Your task to perform on an android device: delete the emails in spam in the gmail app Image 0: 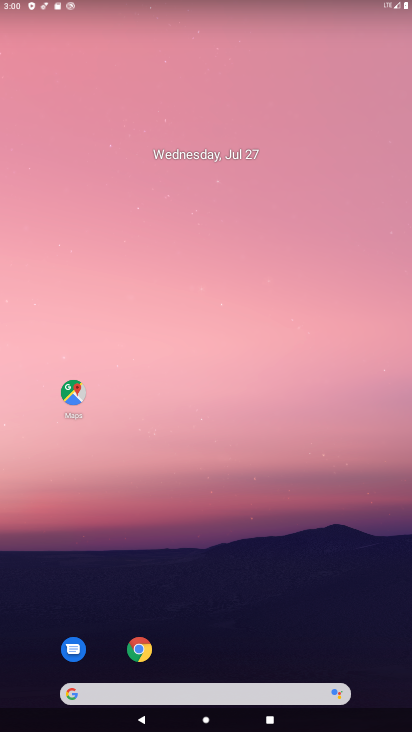
Step 0: drag from (291, 633) to (281, 153)
Your task to perform on an android device: delete the emails in spam in the gmail app Image 1: 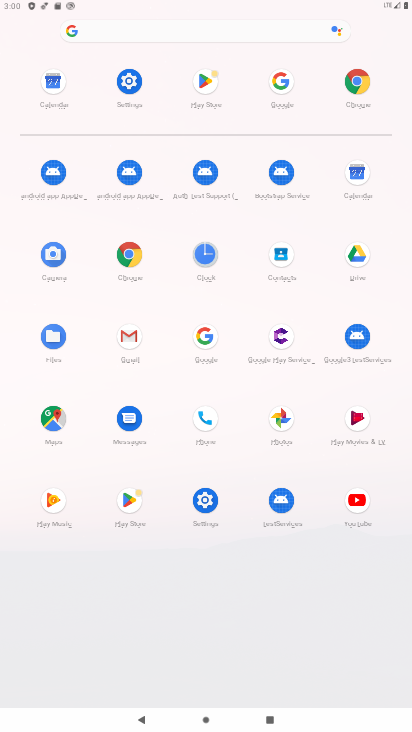
Step 1: click (127, 332)
Your task to perform on an android device: delete the emails in spam in the gmail app Image 2: 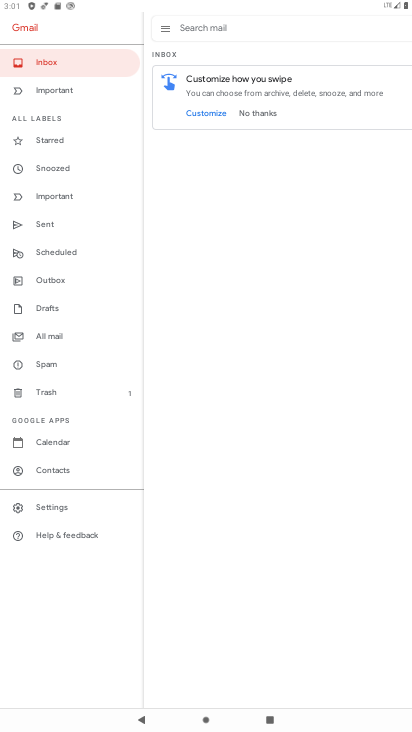
Step 2: click (40, 364)
Your task to perform on an android device: delete the emails in spam in the gmail app Image 3: 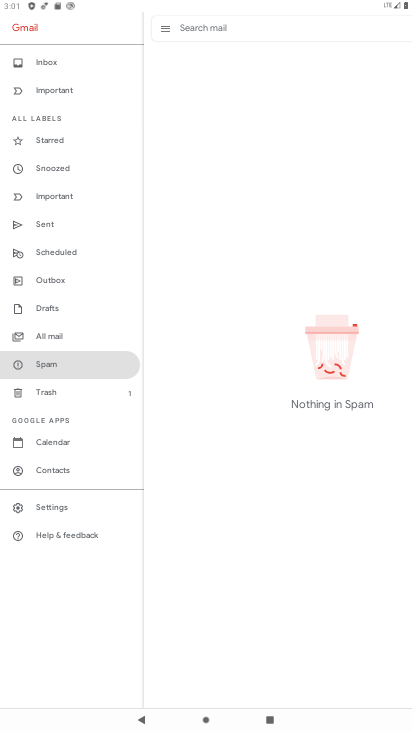
Step 3: click (40, 364)
Your task to perform on an android device: delete the emails in spam in the gmail app Image 4: 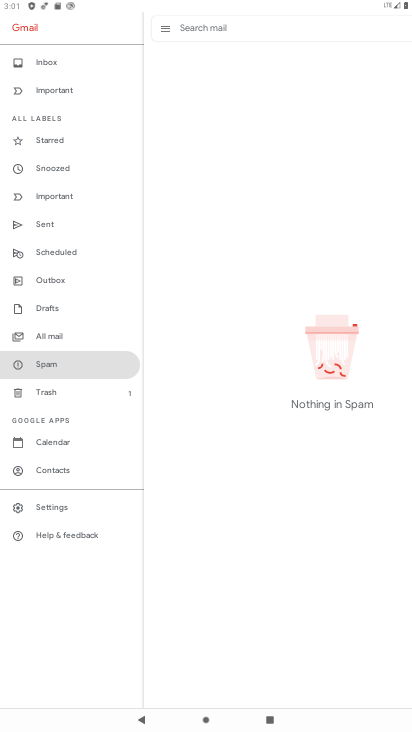
Step 4: task complete